Your task to perform on an android device: turn off improve location accuracy Image 0: 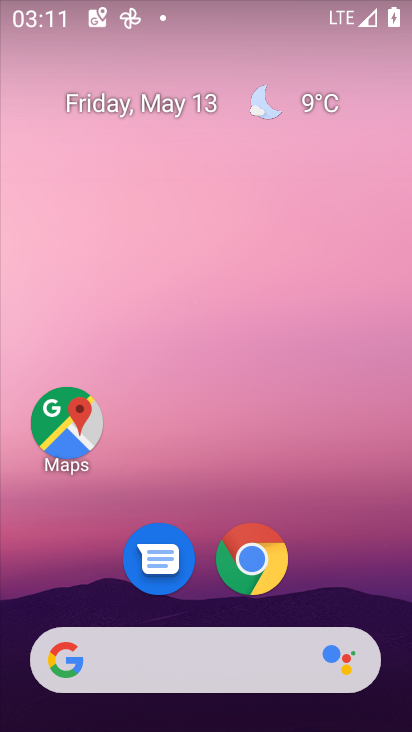
Step 0: click (354, 324)
Your task to perform on an android device: turn off improve location accuracy Image 1: 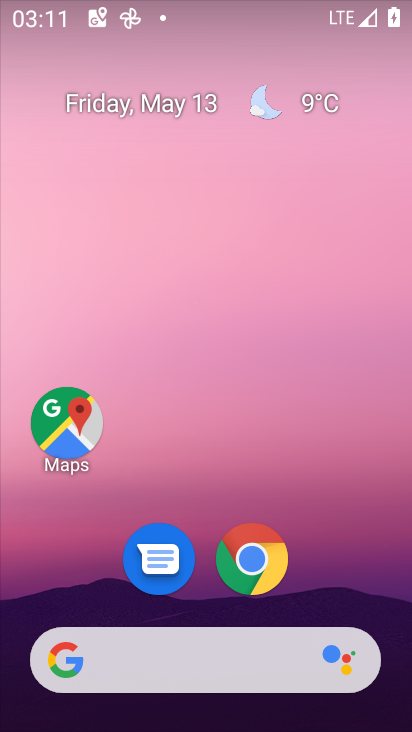
Step 1: click (353, 272)
Your task to perform on an android device: turn off improve location accuracy Image 2: 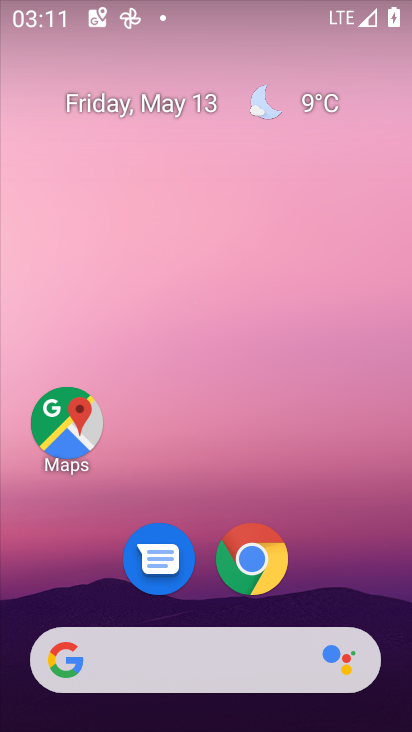
Step 2: drag from (388, 628) to (349, 226)
Your task to perform on an android device: turn off improve location accuracy Image 3: 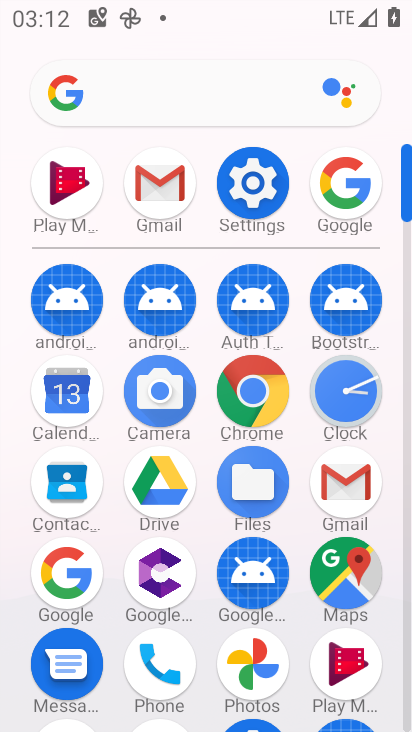
Step 3: click (239, 183)
Your task to perform on an android device: turn off improve location accuracy Image 4: 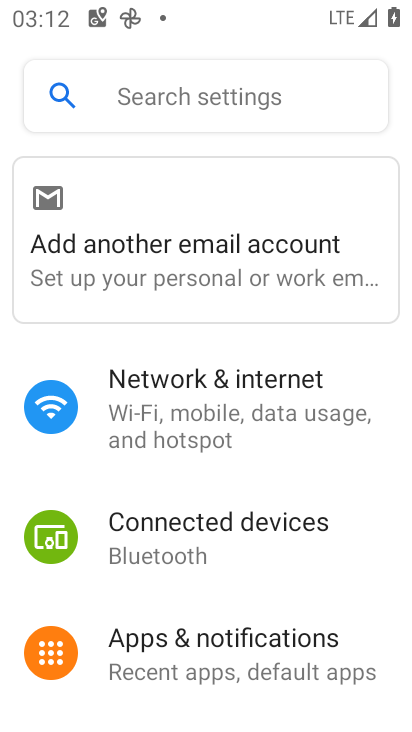
Step 4: drag from (306, 606) to (315, 368)
Your task to perform on an android device: turn off improve location accuracy Image 5: 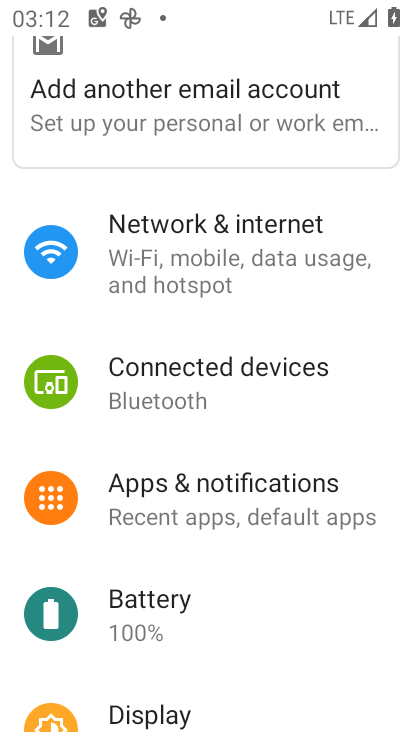
Step 5: drag from (294, 653) to (317, 357)
Your task to perform on an android device: turn off improve location accuracy Image 6: 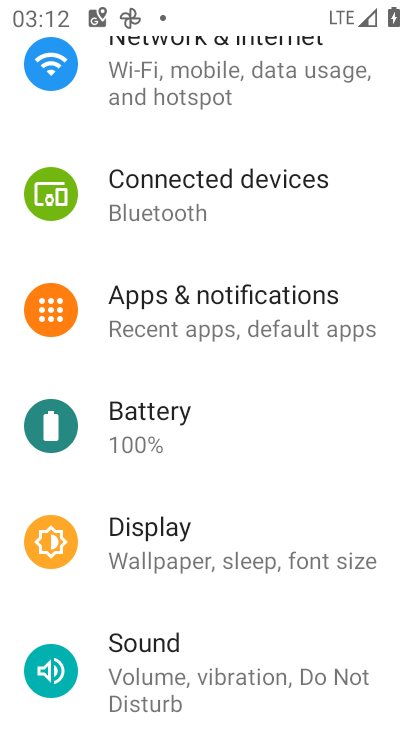
Step 6: drag from (296, 618) to (300, 379)
Your task to perform on an android device: turn off improve location accuracy Image 7: 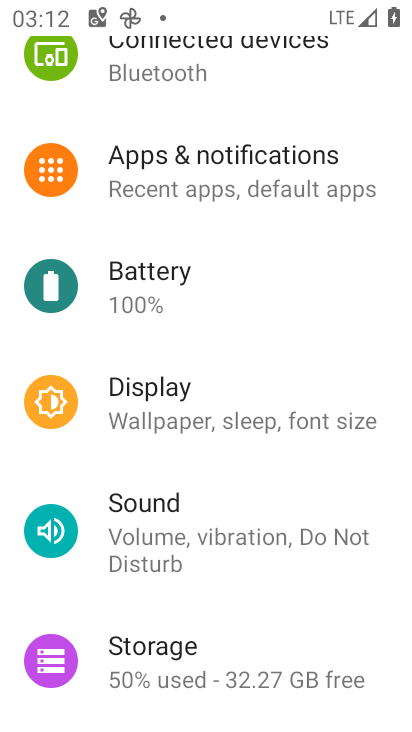
Step 7: drag from (305, 655) to (303, 390)
Your task to perform on an android device: turn off improve location accuracy Image 8: 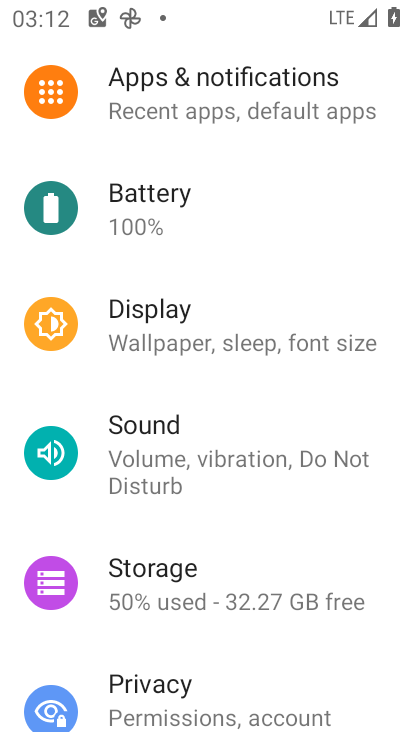
Step 8: drag from (272, 655) to (302, 375)
Your task to perform on an android device: turn off improve location accuracy Image 9: 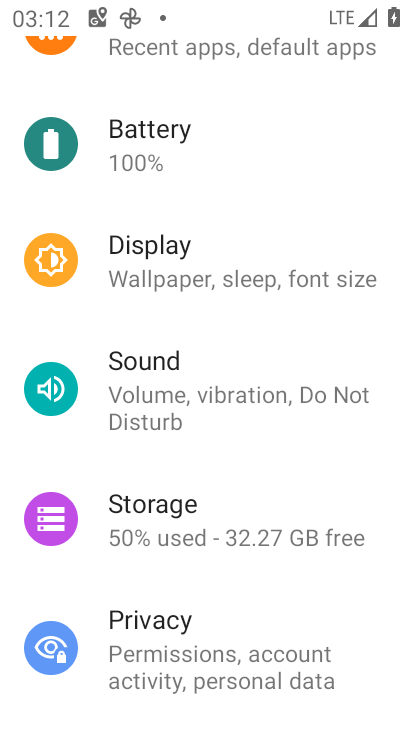
Step 9: drag from (286, 631) to (294, 338)
Your task to perform on an android device: turn off improve location accuracy Image 10: 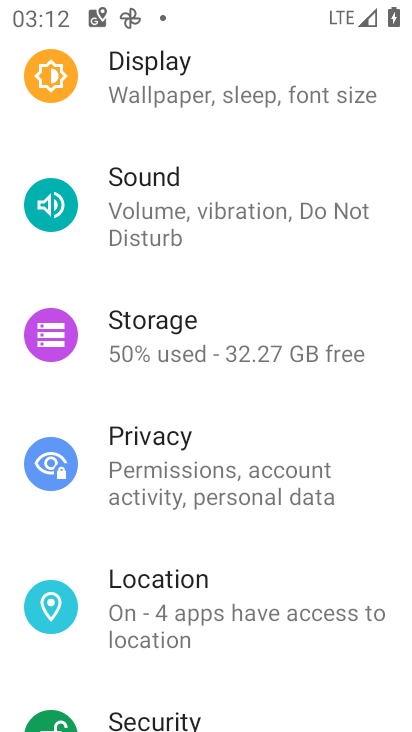
Step 10: drag from (285, 628) to (301, 361)
Your task to perform on an android device: turn off improve location accuracy Image 11: 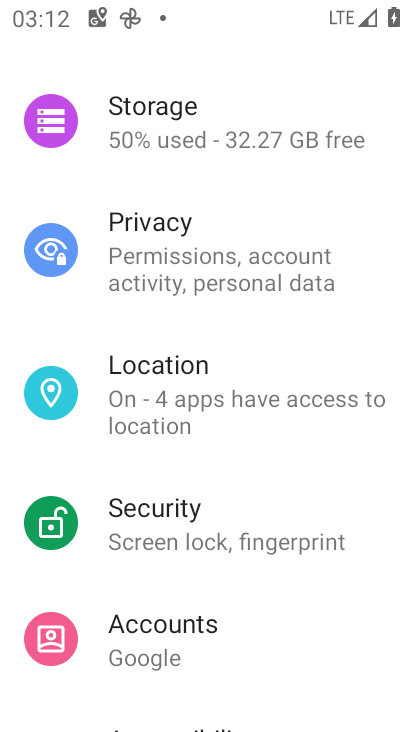
Step 11: click (140, 420)
Your task to perform on an android device: turn off improve location accuracy Image 12: 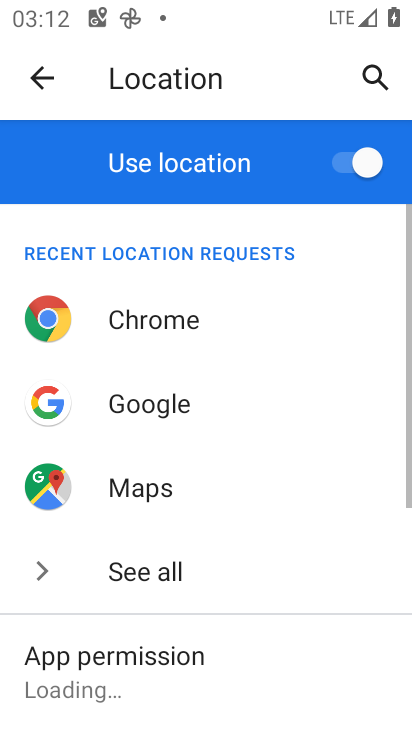
Step 12: drag from (183, 642) to (197, 334)
Your task to perform on an android device: turn off improve location accuracy Image 13: 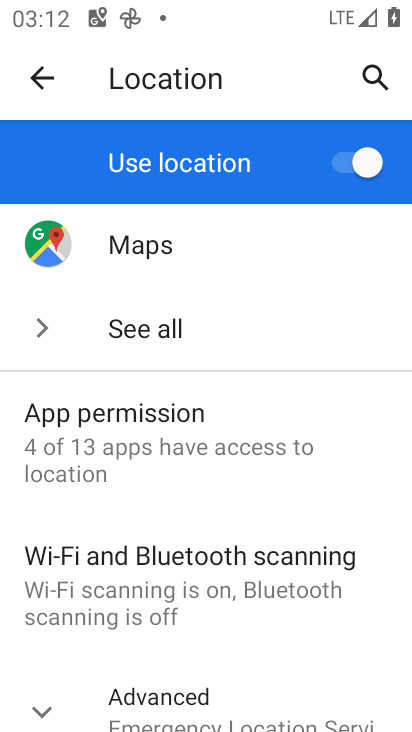
Step 13: drag from (291, 700) to (295, 473)
Your task to perform on an android device: turn off improve location accuracy Image 14: 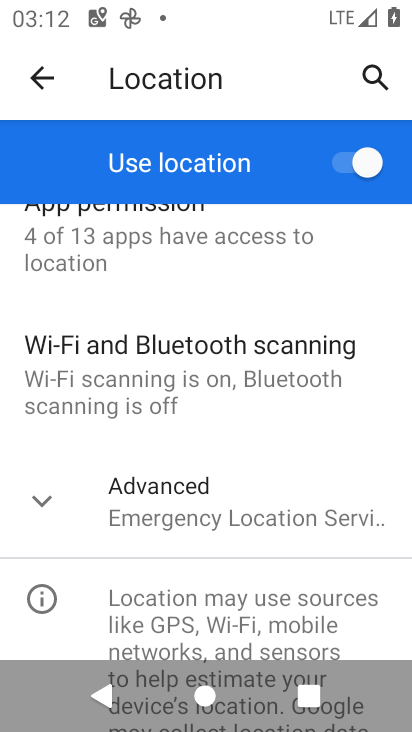
Step 14: click (53, 500)
Your task to perform on an android device: turn off improve location accuracy Image 15: 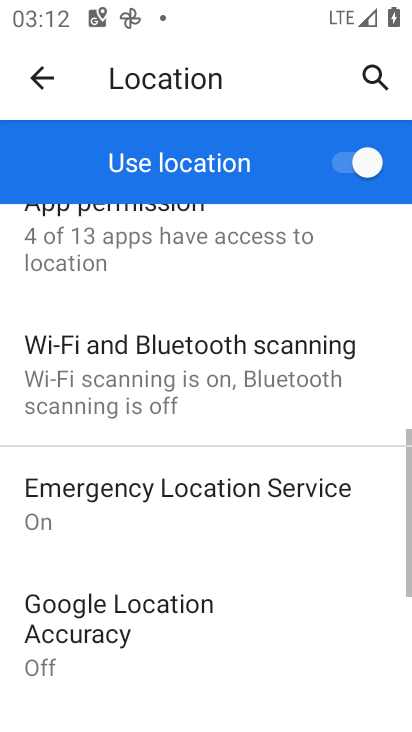
Step 15: drag from (263, 630) to (281, 432)
Your task to perform on an android device: turn off improve location accuracy Image 16: 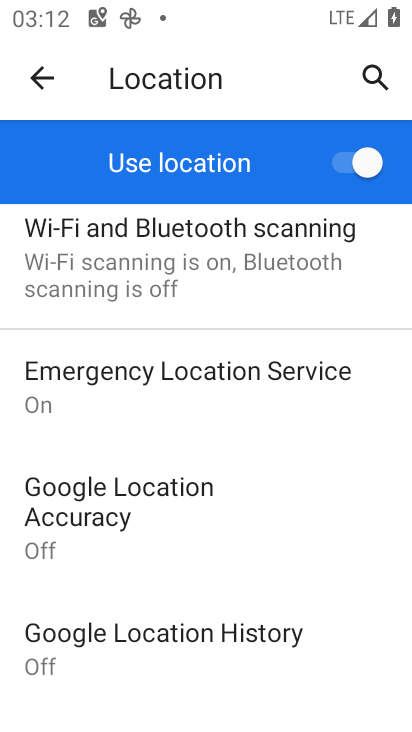
Step 16: click (125, 503)
Your task to perform on an android device: turn off improve location accuracy Image 17: 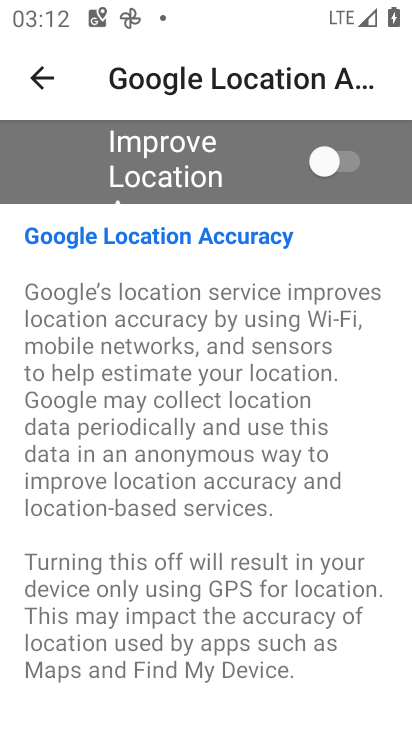
Step 17: task complete